Your task to perform on an android device: What's the weather? Image 0: 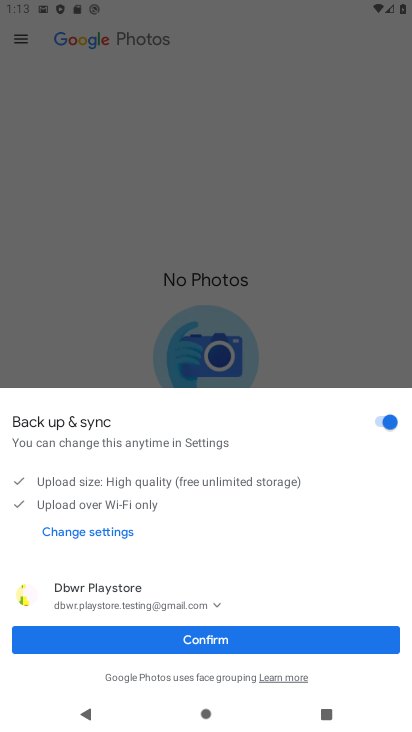
Step 0: press home button
Your task to perform on an android device: What's the weather? Image 1: 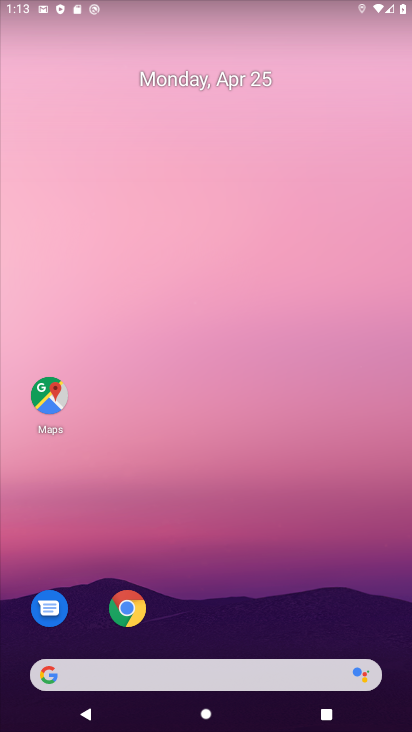
Step 1: click (119, 615)
Your task to perform on an android device: What's the weather? Image 2: 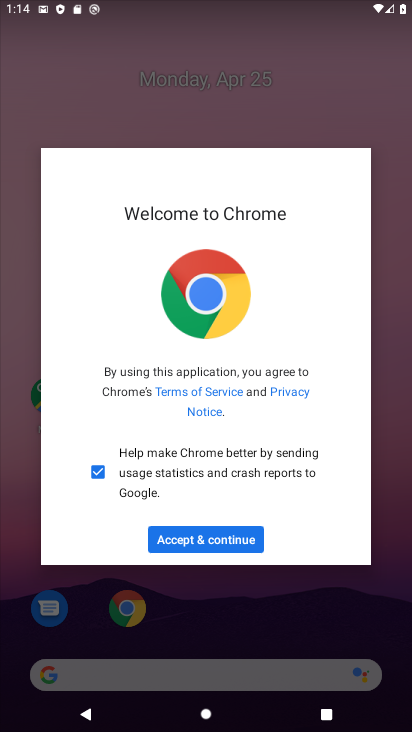
Step 2: click (186, 549)
Your task to perform on an android device: What's the weather? Image 3: 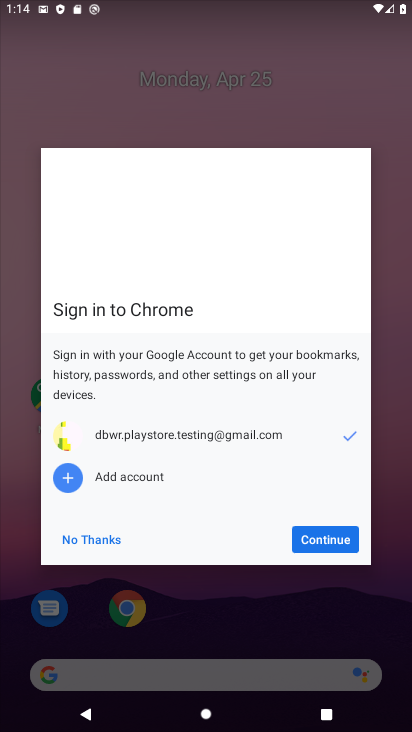
Step 3: click (346, 535)
Your task to perform on an android device: What's the weather? Image 4: 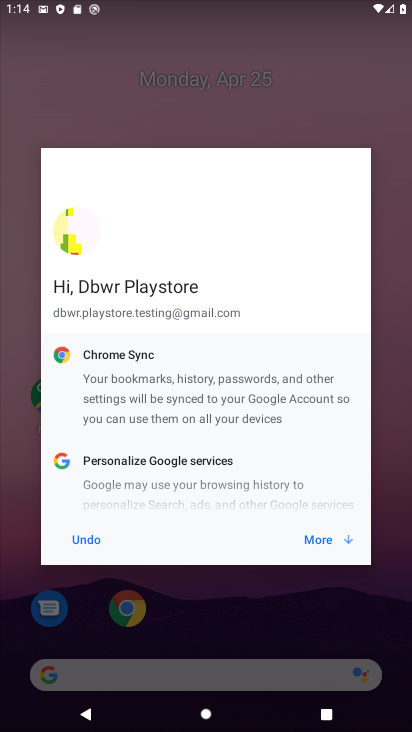
Step 4: click (346, 535)
Your task to perform on an android device: What's the weather? Image 5: 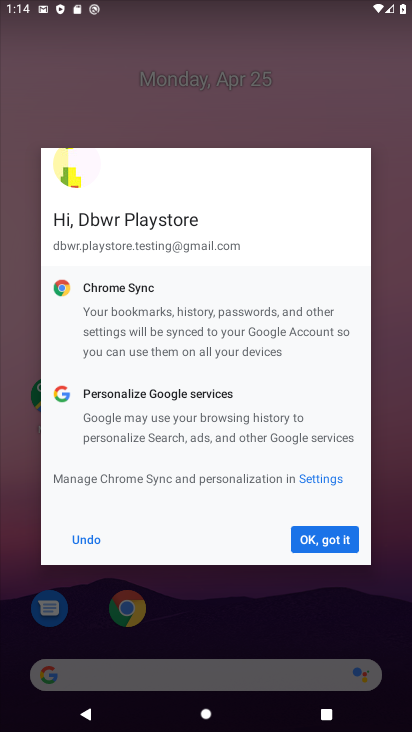
Step 5: click (346, 535)
Your task to perform on an android device: What's the weather? Image 6: 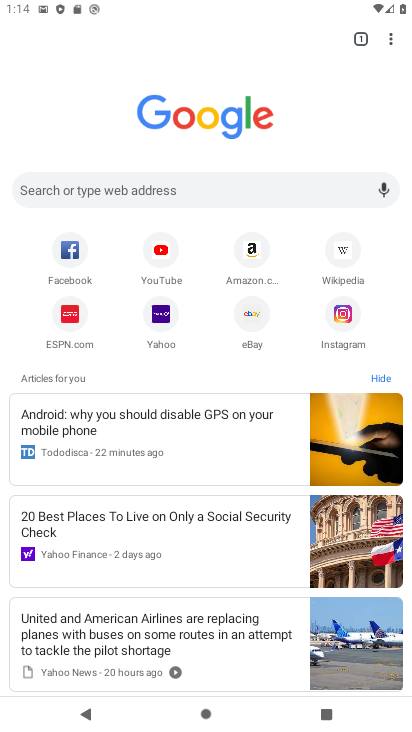
Step 6: click (176, 194)
Your task to perform on an android device: What's the weather? Image 7: 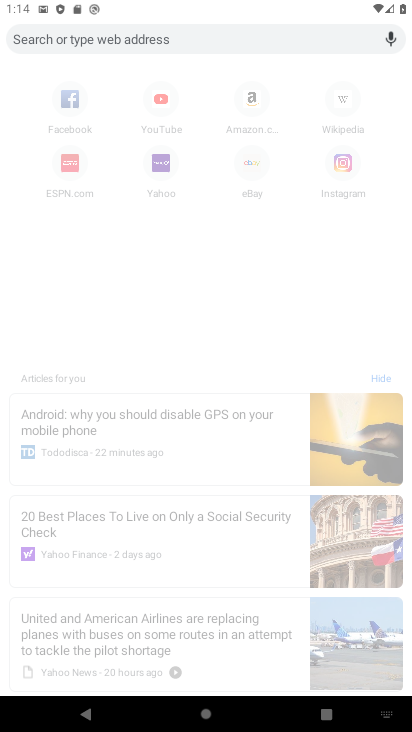
Step 7: type "What's the weather?"
Your task to perform on an android device: What's the weather? Image 8: 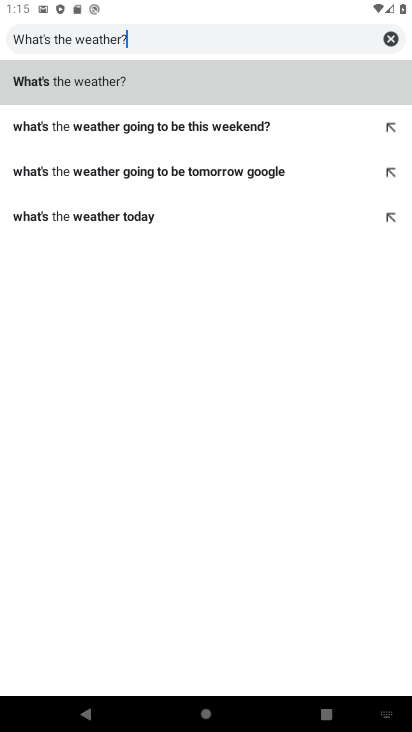
Step 8: click (110, 77)
Your task to perform on an android device: What's the weather? Image 9: 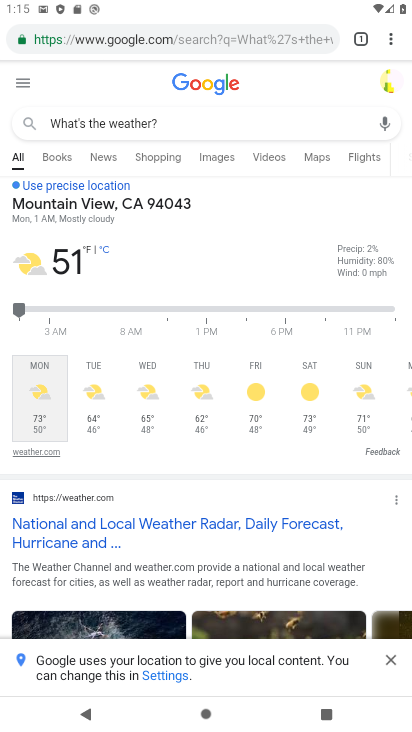
Step 9: task complete